Your task to perform on an android device: find snoozed emails in the gmail app Image 0: 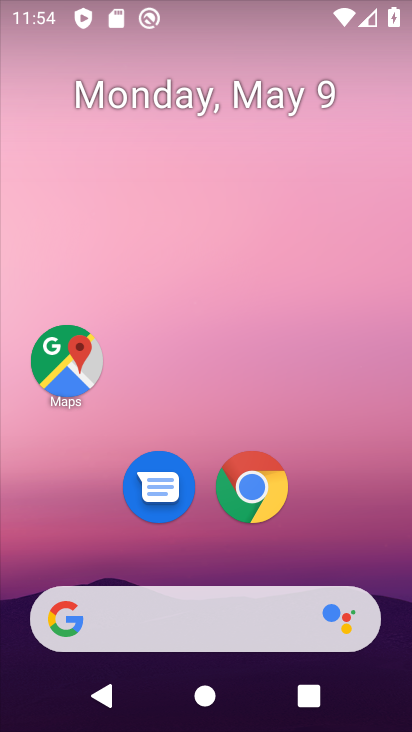
Step 0: drag from (353, 532) to (264, 107)
Your task to perform on an android device: find snoozed emails in the gmail app Image 1: 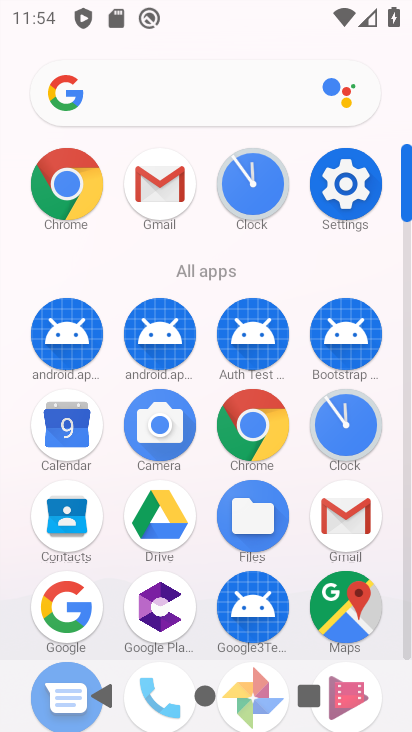
Step 1: click (173, 166)
Your task to perform on an android device: find snoozed emails in the gmail app Image 2: 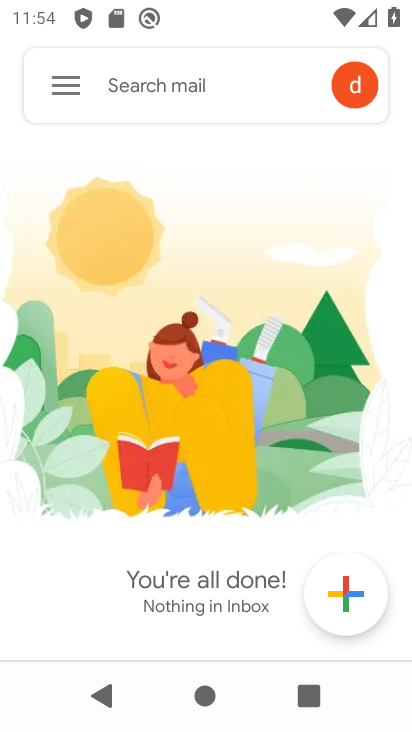
Step 2: click (58, 75)
Your task to perform on an android device: find snoozed emails in the gmail app Image 3: 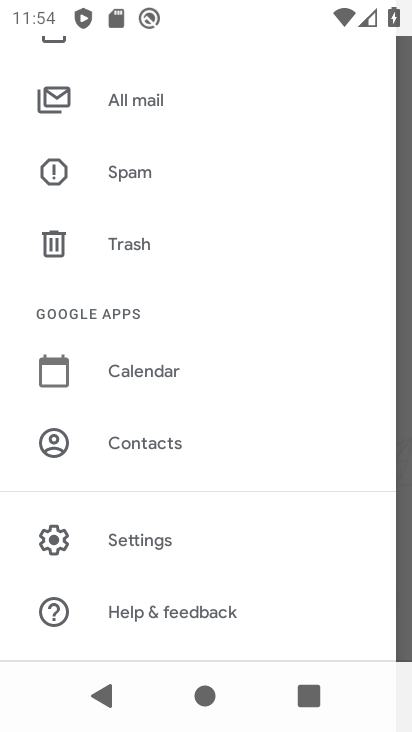
Step 3: drag from (216, 502) to (236, 706)
Your task to perform on an android device: find snoozed emails in the gmail app Image 4: 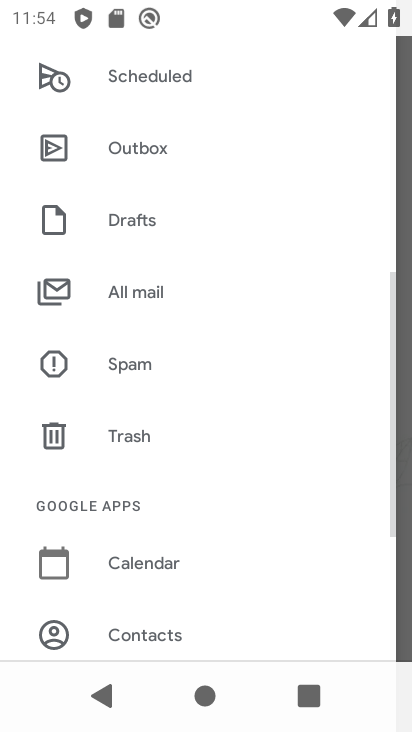
Step 4: drag from (191, 193) to (270, 492)
Your task to perform on an android device: find snoozed emails in the gmail app Image 5: 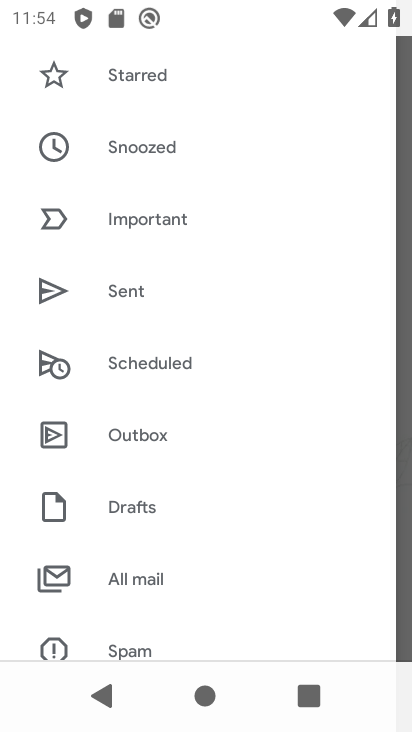
Step 5: click (156, 132)
Your task to perform on an android device: find snoozed emails in the gmail app Image 6: 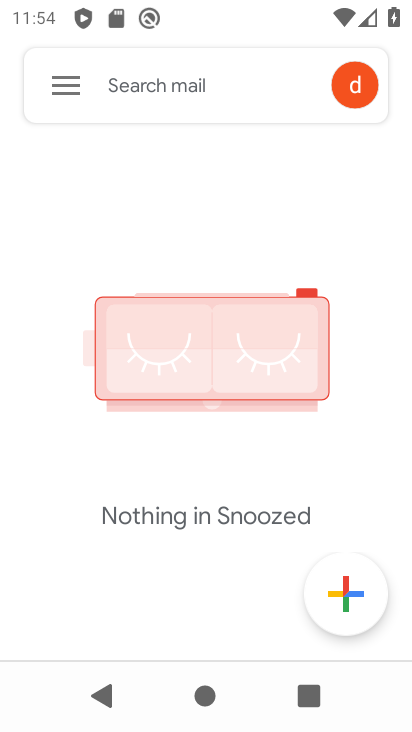
Step 6: task complete